Your task to perform on an android device: add a contact in the contacts app Image 0: 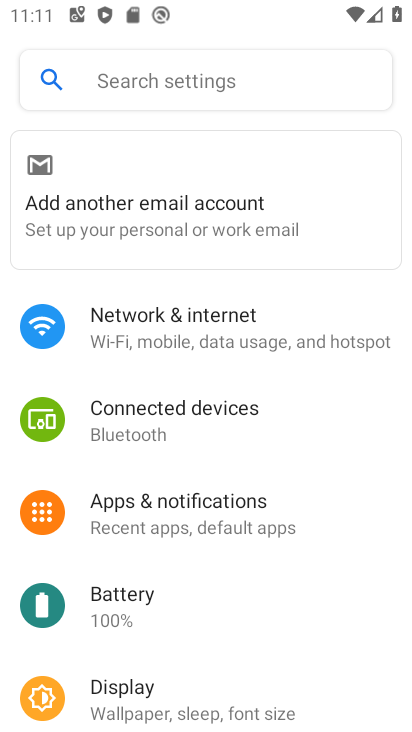
Step 0: press home button
Your task to perform on an android device: add a contact in the contacts app Image 1: 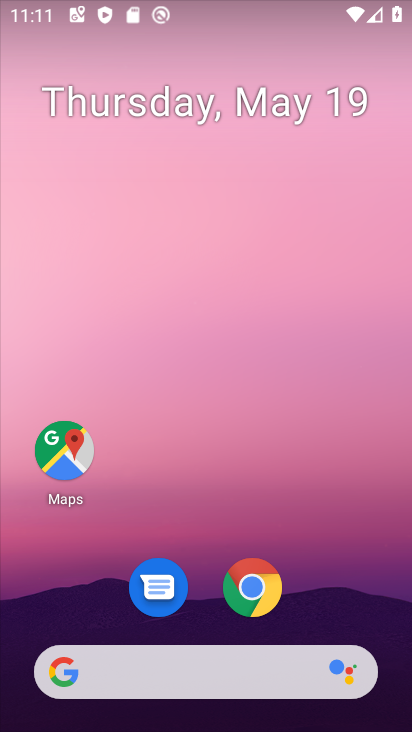
Step 1: drag from (206, 663) to (181, 62)
Your task to perform on an android device: add a contact in the contacts app Image 2: 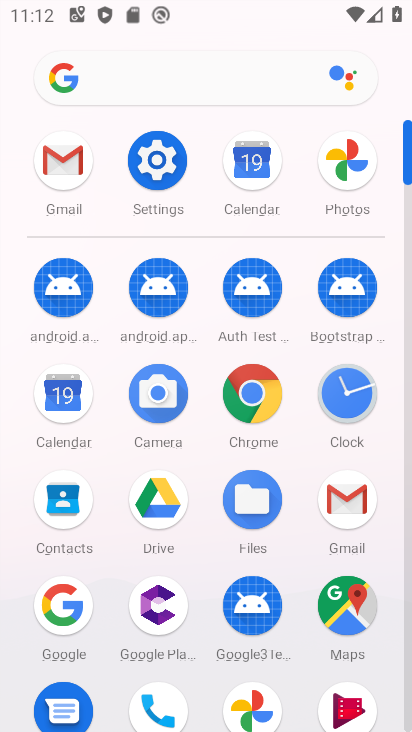
Step 2: click (56, 504)
Your task to perform on an android device: add a contact in the contacts app Image 3: 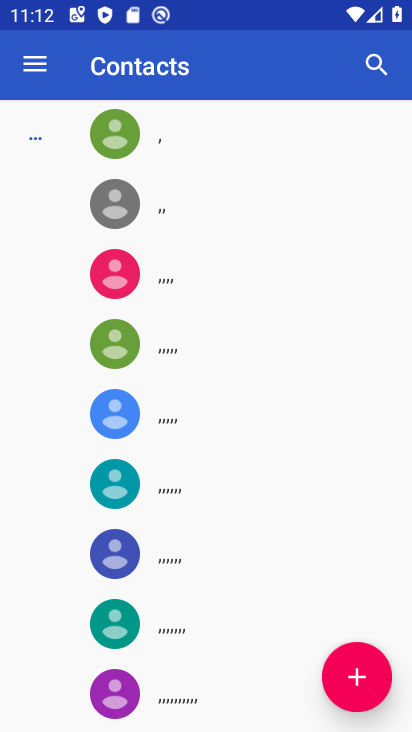
Step 3: click (345, 677)
Your task to perform on an android device: add a contact in the contacts app Image 4: 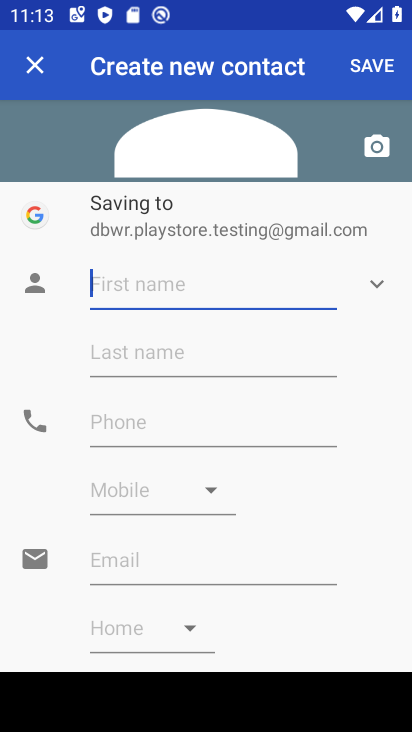
Step 4: type "vcb"
Your task to perform on an android device: add a contact in the contacts app Image 5: 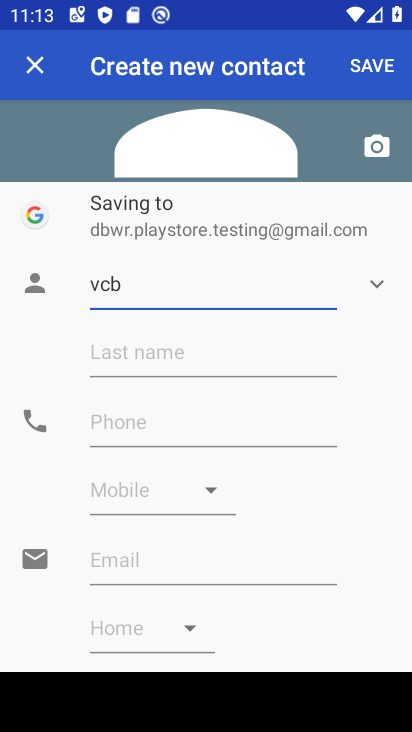
Step 5: click (203, 426)
Your task to perform on an android device: add a contact in the contacts app Image 6: 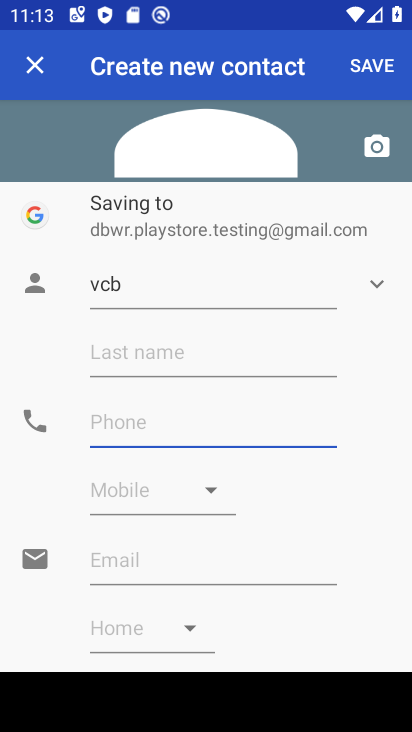
Step 6: type "7899979"
Your task to perform on an android device: add a contact in the contacts app Image 7: 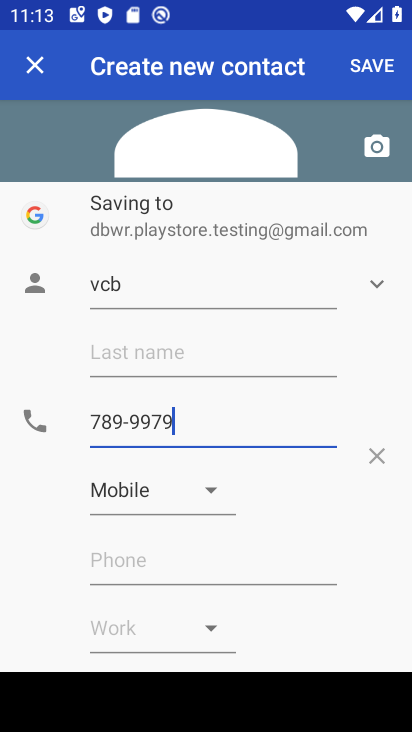
Step 7: click (349, 58)
Your task to perform on an android device: add a contact in the contacts app Image 8: 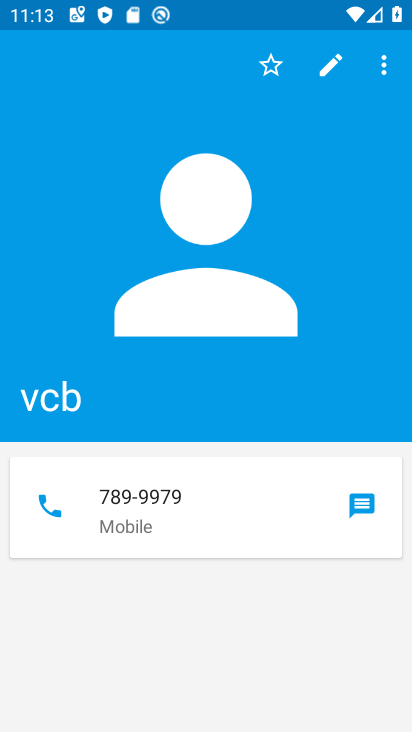
Step 8: task complete